Your task to perform on an android device: add a label to a message in the gmail app Image 0: 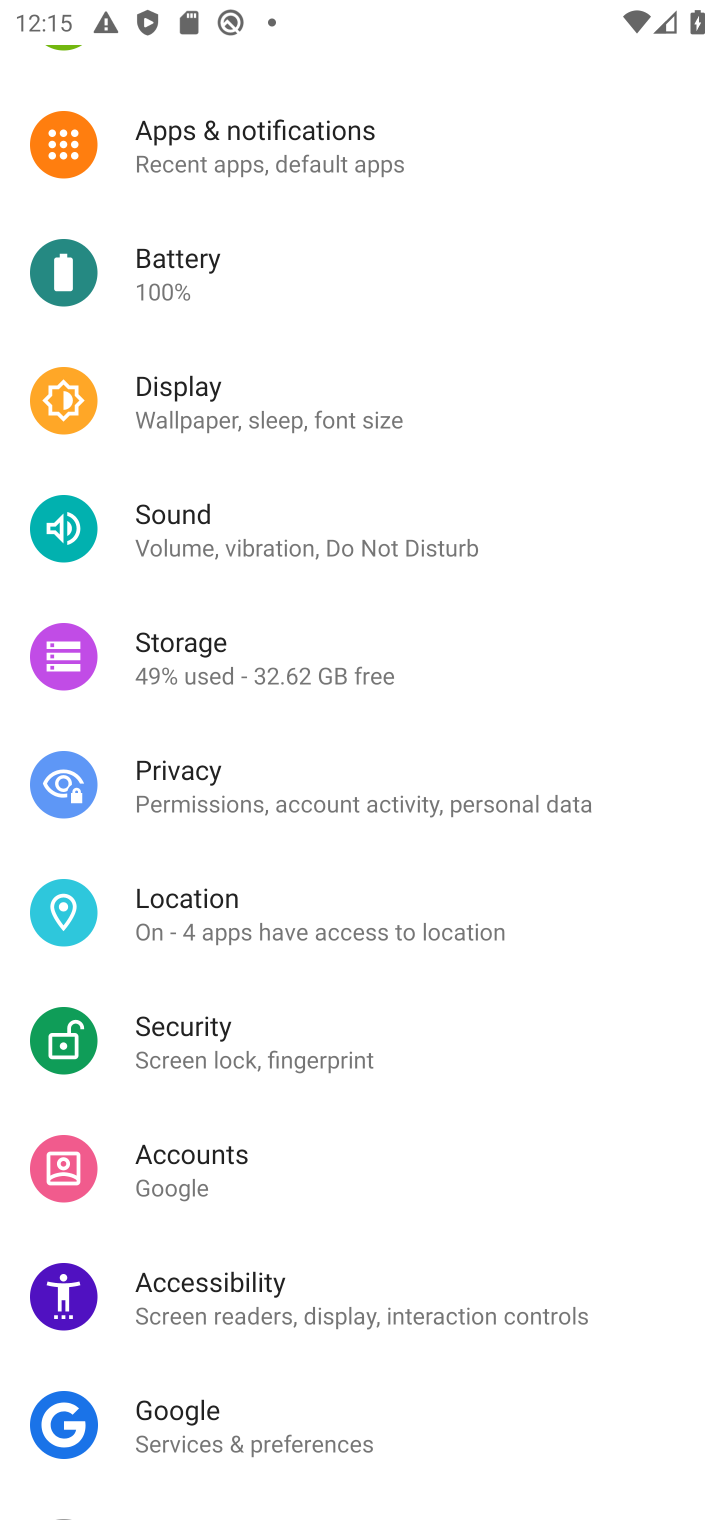
Step 0: press home button
Your task to perform on an android device: add a label to a message in the gmail app Image 1: 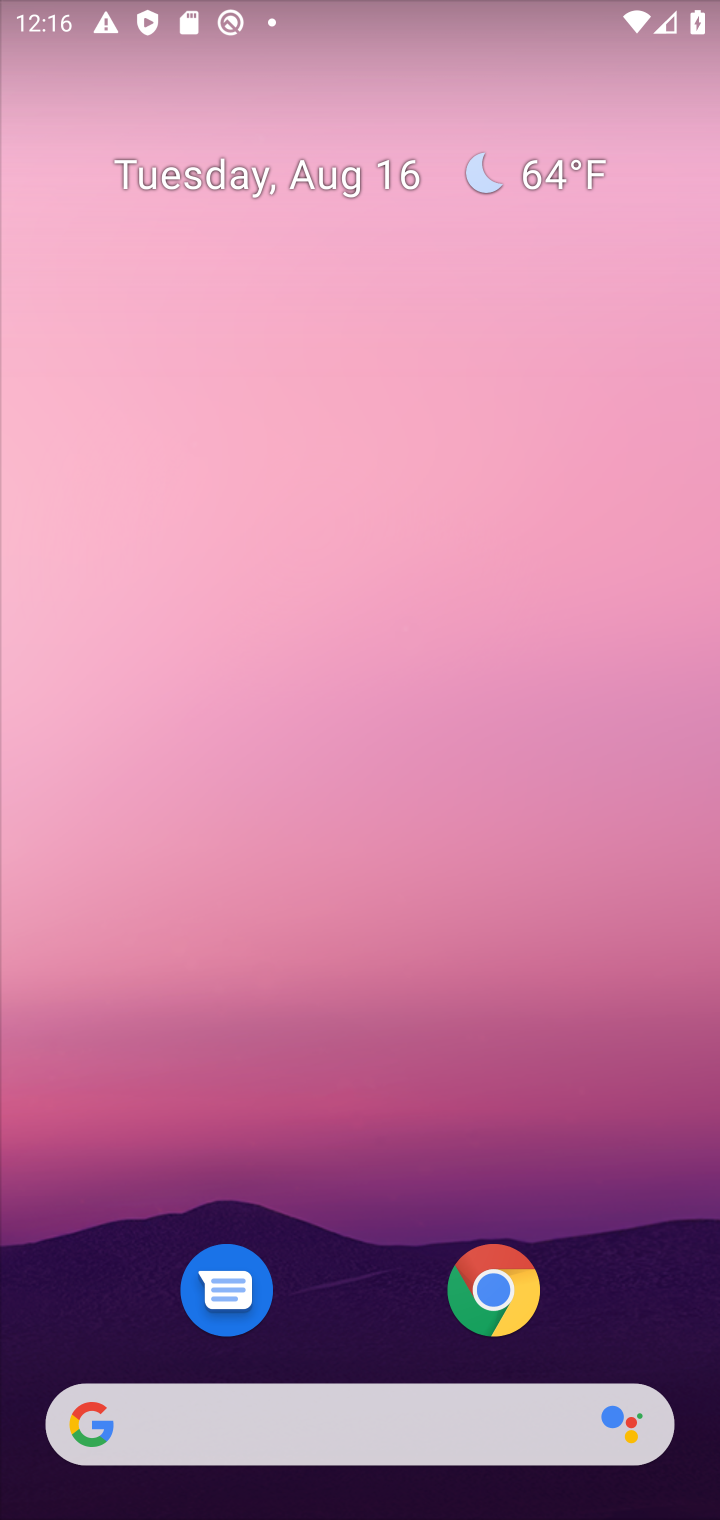
Step 1: drag from (249, 881) to (469, 174)
Your task to perform on an android device: add a label to a message in the gmail app Image 2: 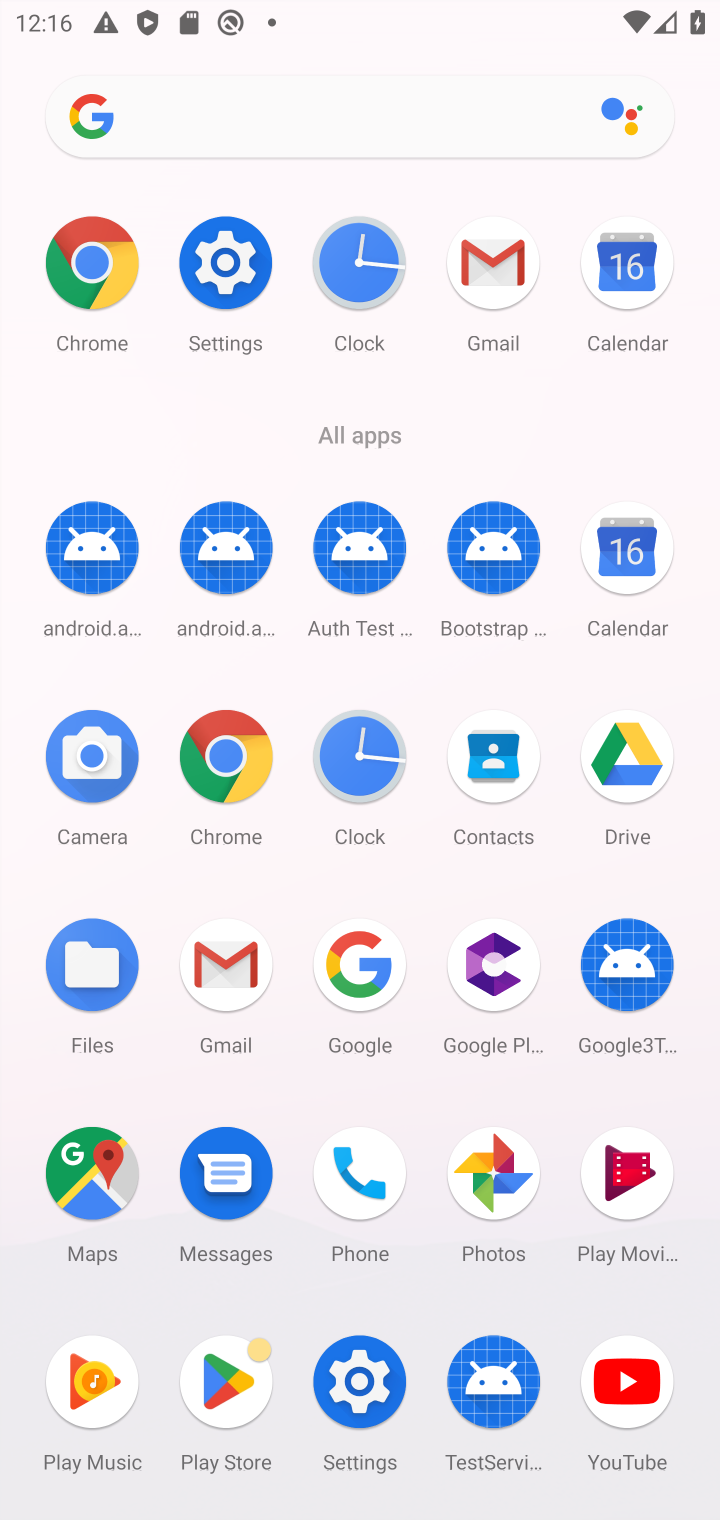
Step 2: click (263, 953)
Your task to perform on an android device: add a label to a message in the gmail app Image 3: 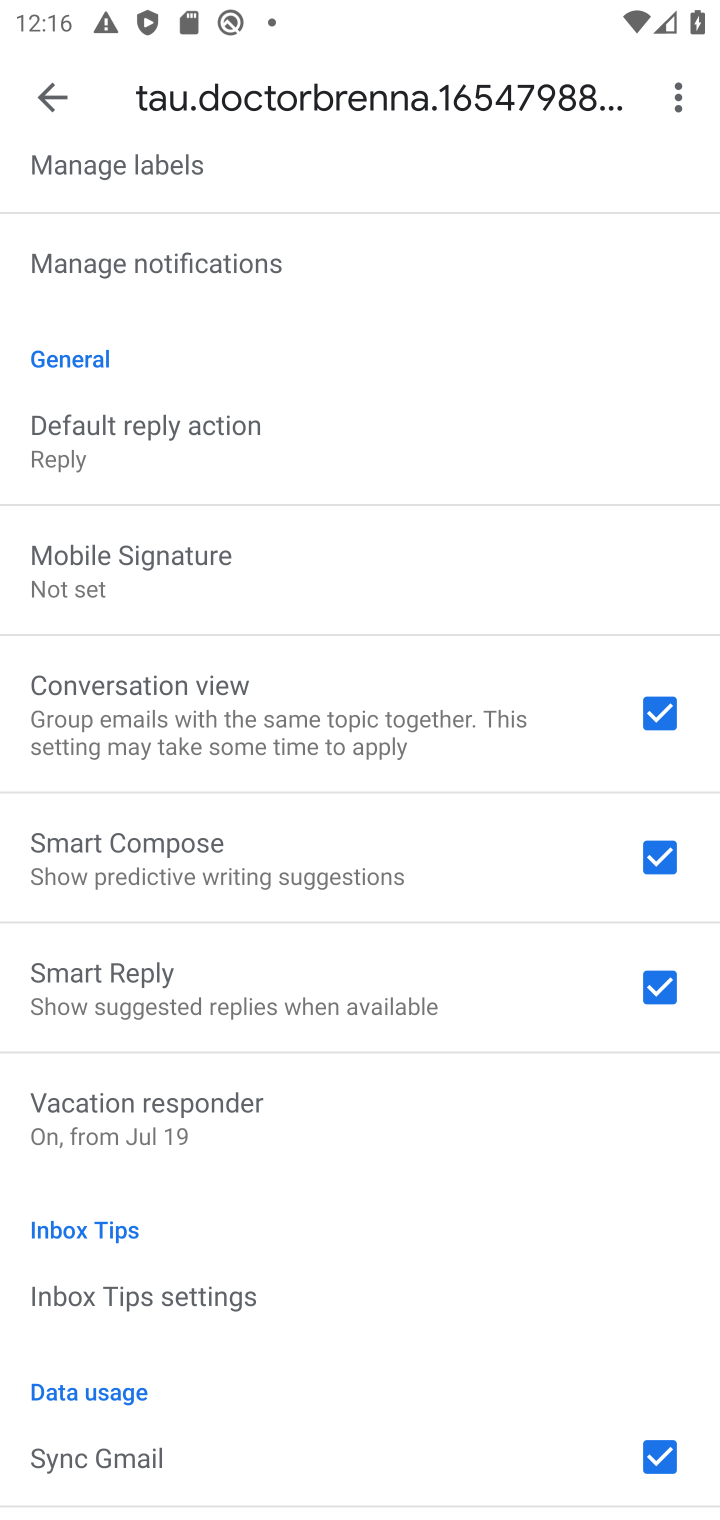
Step 3: task complete